Your task to perform on an android device: Go to internet settings Image 0: 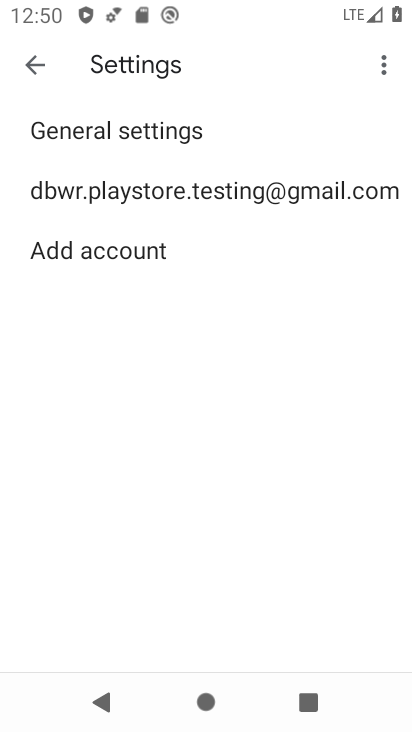
Step 0: press home button
Your task to perform on an android device: Go to internet settings Image 1: 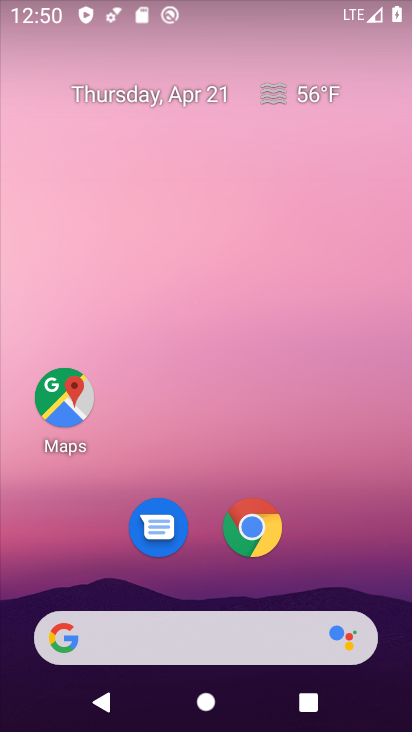
Step 1: drag from (206, 593) to (283, 109)
Your task to perform on an android device: Go to internet settings Image 2: 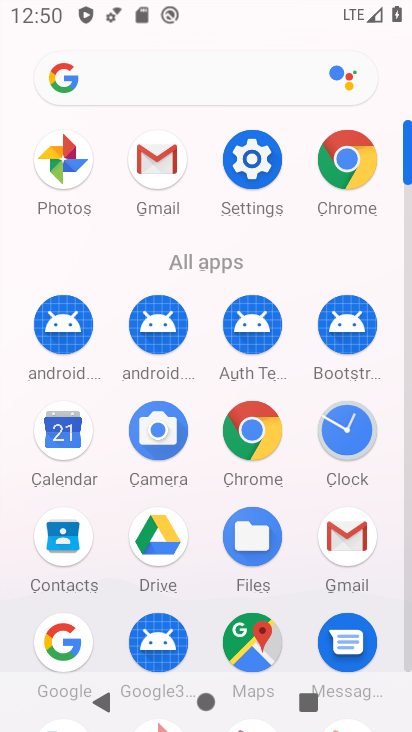
Step 2: click (245, 152)
Your task to perform on an android device: Go to internet settings Image 3: 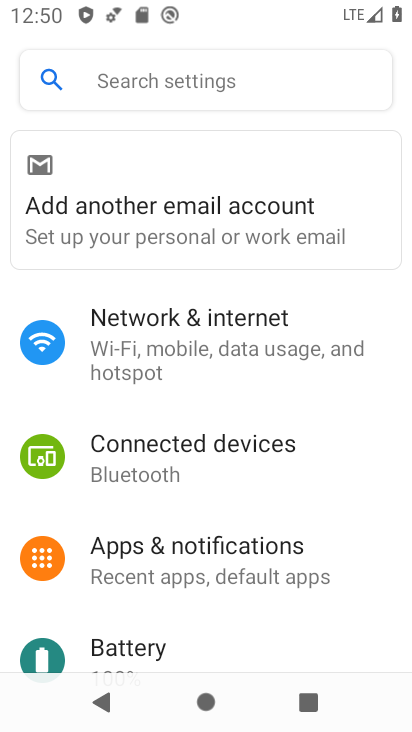
Step 3: click (122, 331)
Your task to perform on an android device: Go to internet settings Image 4: 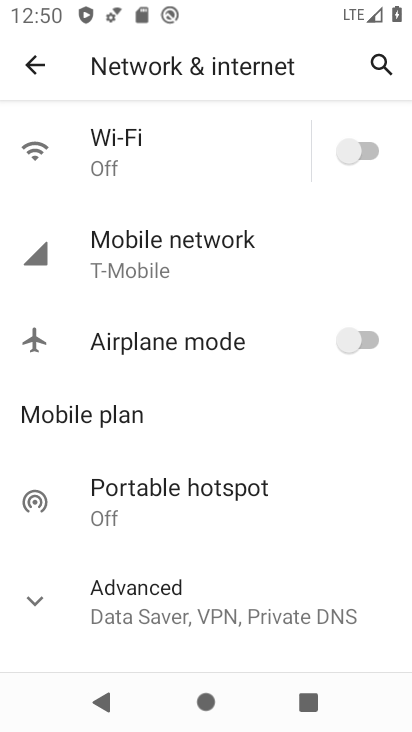
Step 4: task complete